Your task to perform on an android device: Open internet settings Image 0: 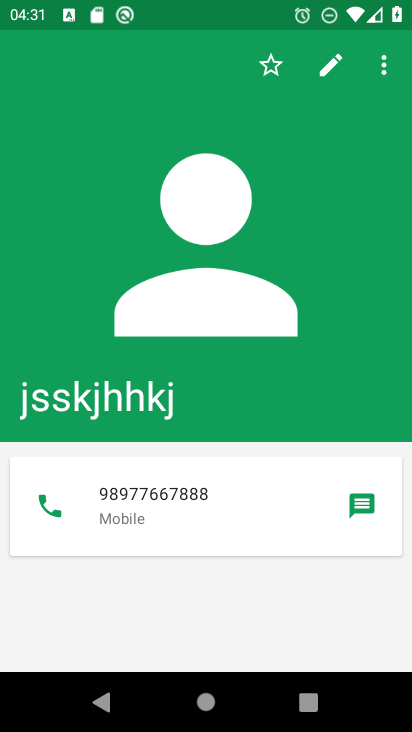
Step 0: press home button
Your task to perform on an android device: Open internet settings Image 1: 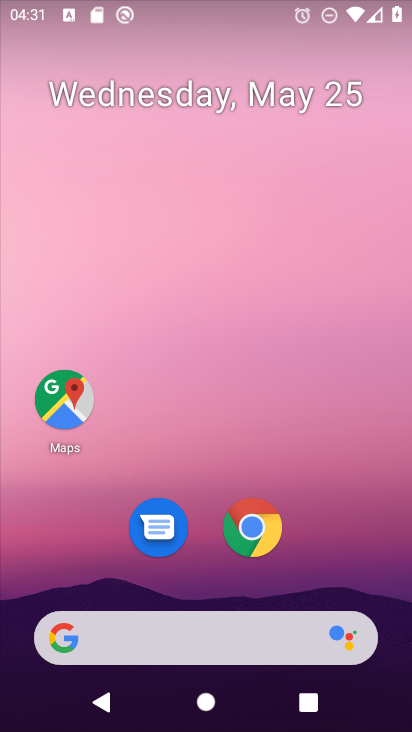
Step 1: drag from (209, 476) to (126, 60)
Your task to perform on an android device: Open internet settings Image 2: 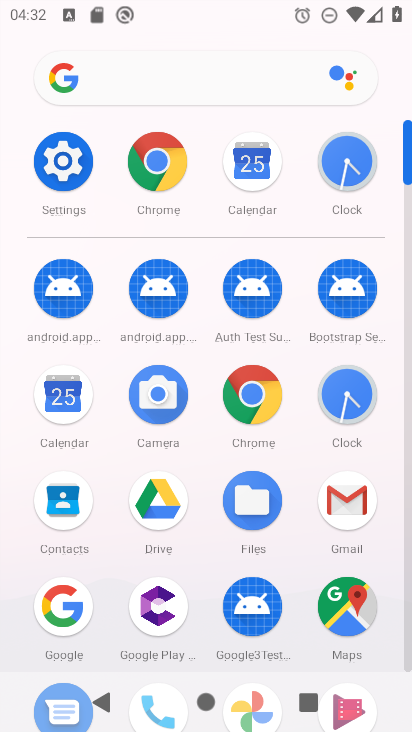
Step 2: click (59, 166)
Your task to perform on an android device: Open internet settings Image 3: 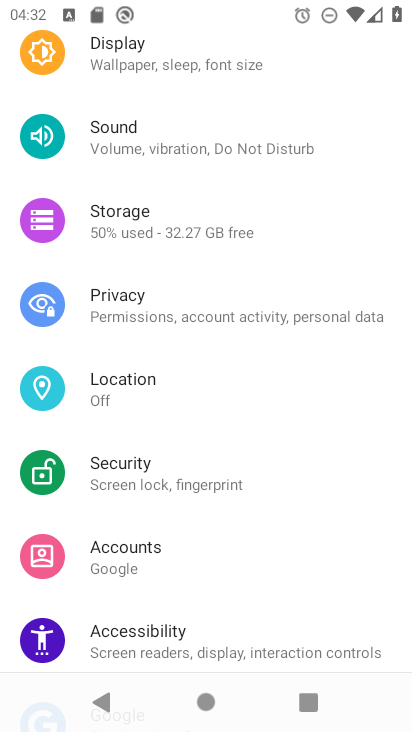
Step 3: drag from (271, 453) to (243, 560)
Your task to perform on an android device: Open internet settings Image 4: 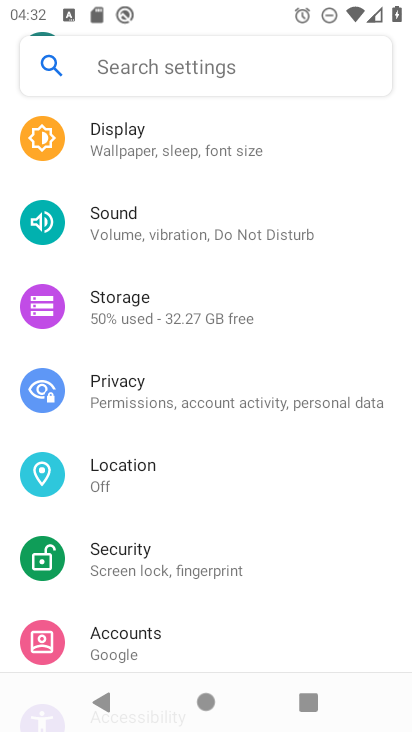
Step 4: drag from (313, 150) to (298, 471)
Your task to perform on an android device: Open internet settings Image 5: 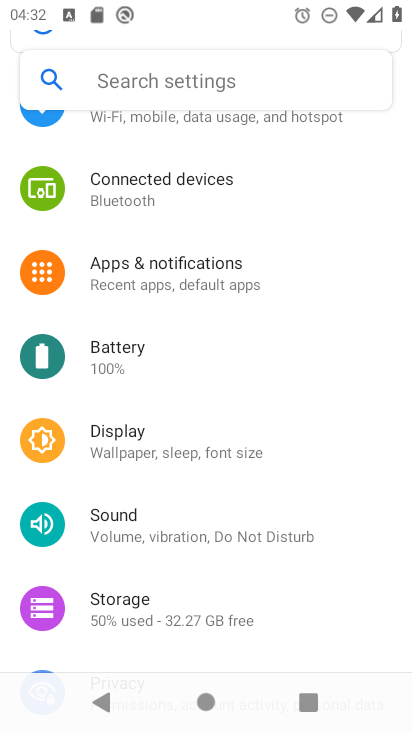
Step 5: drag from (348, 218) to (307, 472)
Your task to perform on an android device: Open internet settings Image 6: 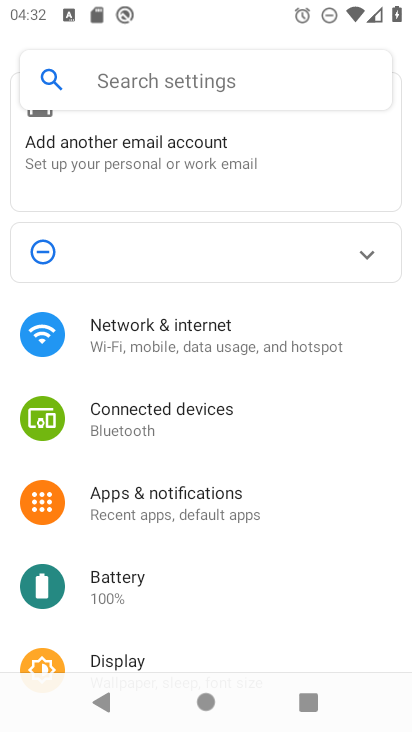
Step 6: click (231, 343)
Your task to perform on an android device: Open internet settings Image 7: 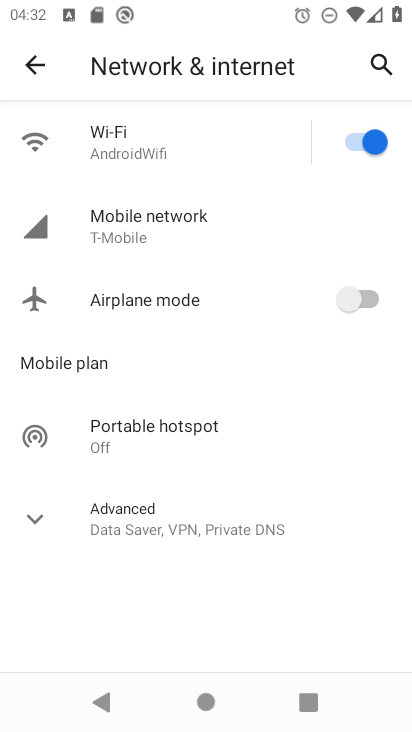
Step 7: click (170, 522)
Your task to perform on an android device: Open internet settings Image 8: 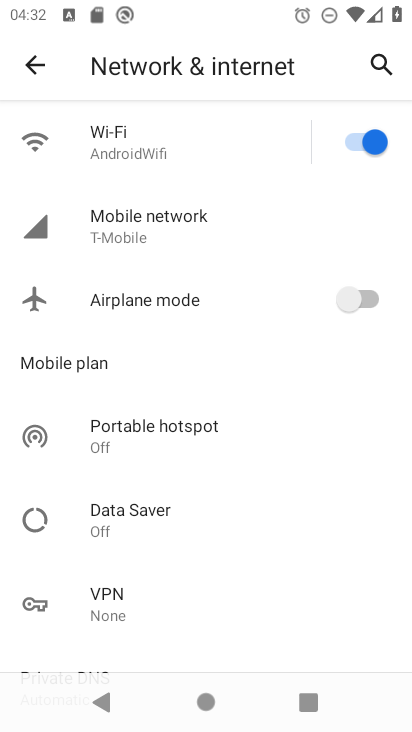
Step 8: drag from (313, 523) to (317, 178)
Your task to perform on an android device: Open internet settings Image 9: 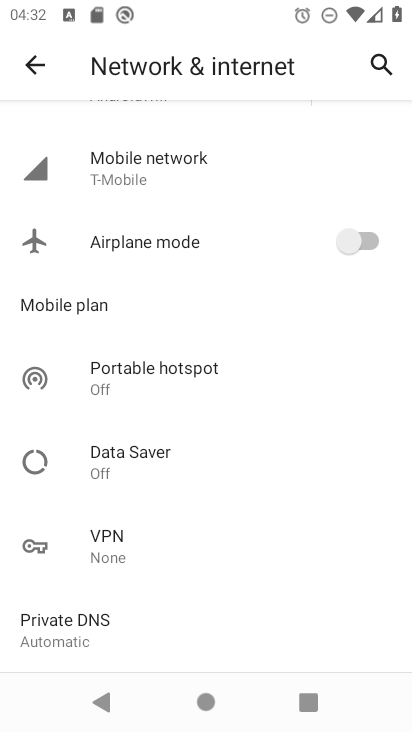
Step 9: drag from (330, 396) to (272, 632)
Your task to perform on an android device: Open internet settings Image 10: 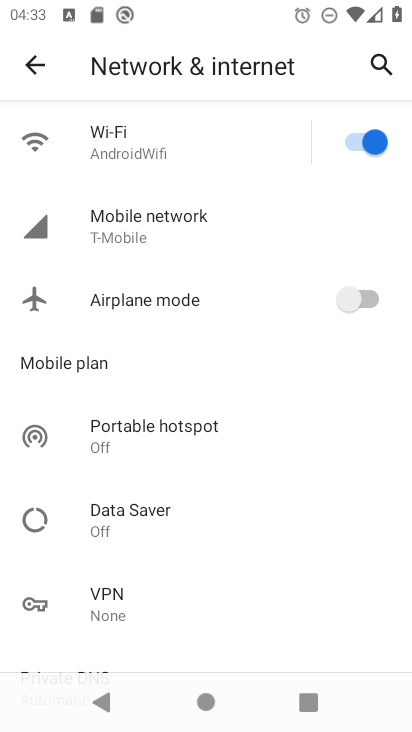
Step 10: click (30, 66)
Your task to perform on an android device: Open internet settings Image 11: 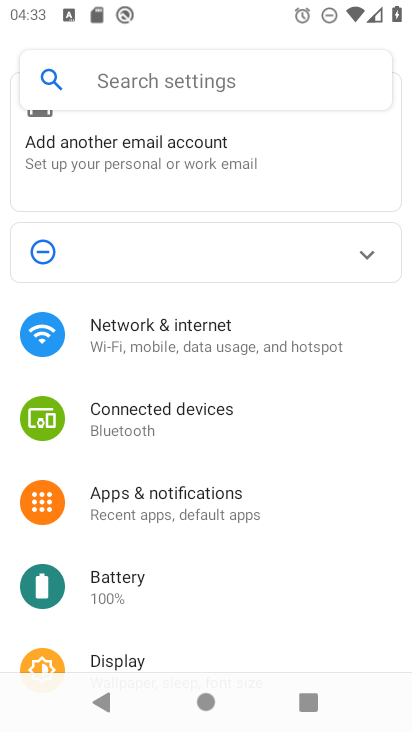
Step 11: drag from (299, 404) to (291, 611)
Your task to perform on an android device: Open internet settings Image 12: 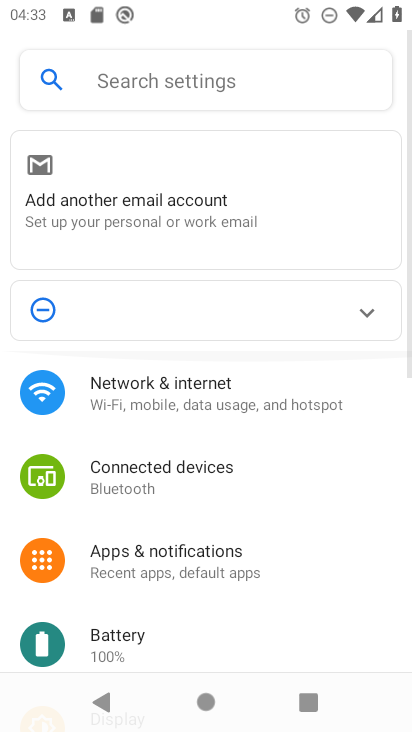
Step 12: drag from (314, 549) to (296, 280)
Your task to perform on an android device: Open internet settings Image 13: 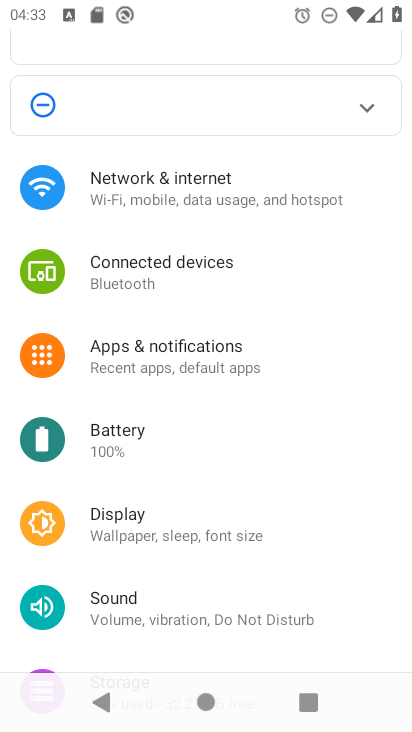
Step 13: drag from (298, 452) to (300, 267)
Your task to perform on an android device: Open internet settings Image 14: 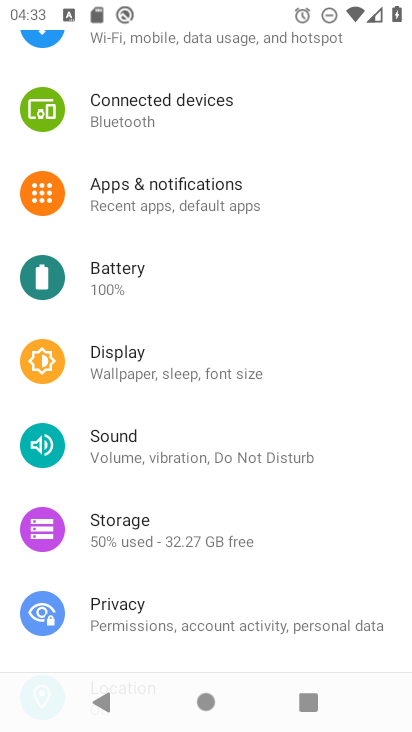
Step 14: drag from (310, 504) to (326, 285)
Your task to perform on an android device: Open internet settings Image 15: 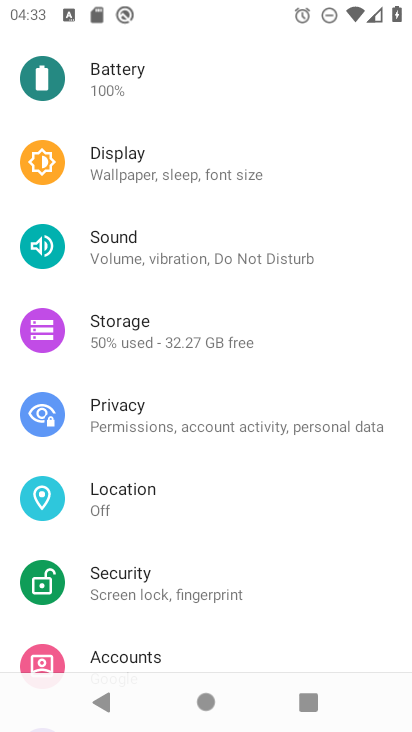
Step 15: drag from (281, 508) to (298, 282)
Your task to perform on an android device: Open internet settings Image 16: 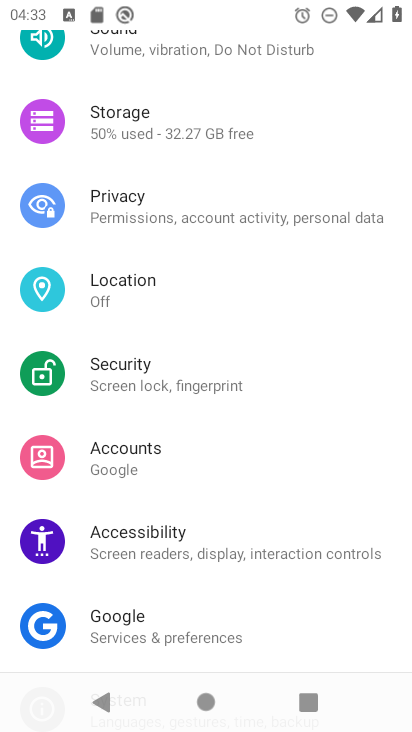
Step 16: drag from (319, 160) to (317, 565)
Your task to perform on an android device: Open internet settings Image 17: 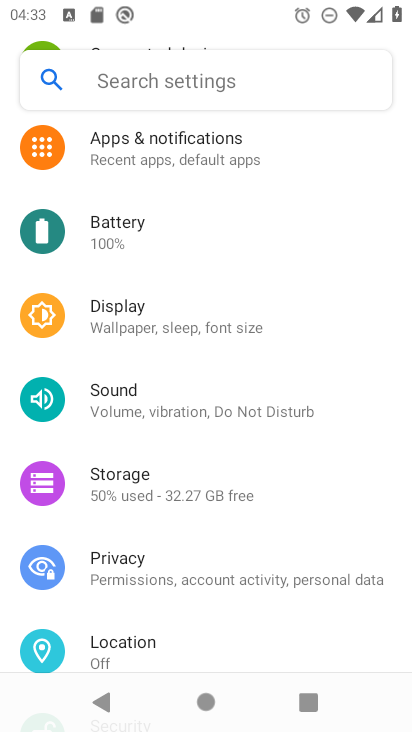
Step 17: drag from (300, 218) to (245, 572)
Your task to perform on an android device: Open internet settings Image 18: 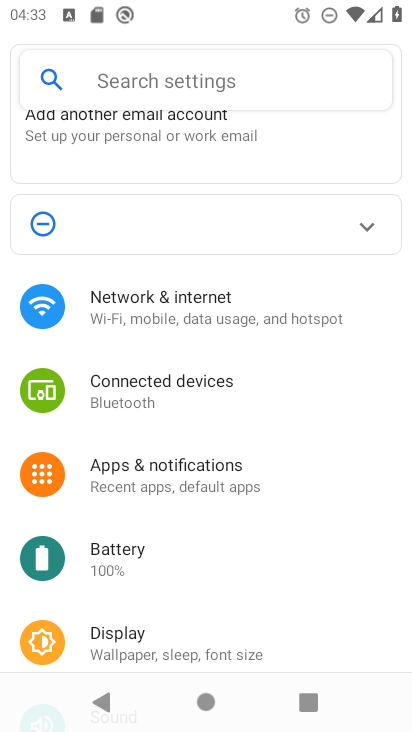
Step 18: drag from (307, 190) to (259, 512)
Your task to perform on an android device: Open internet settings Image 19: 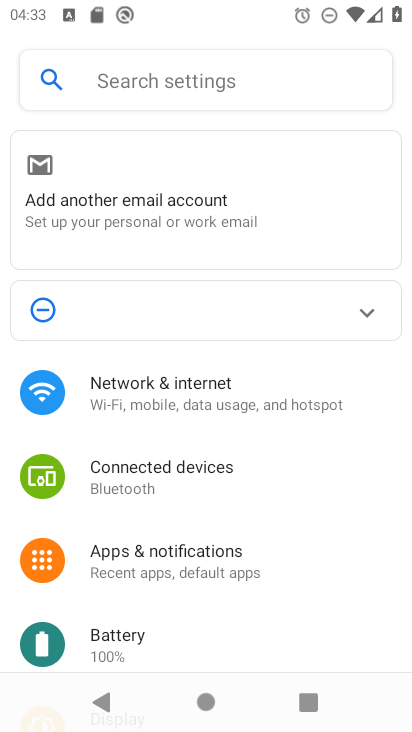
Step 19: click (249, 310)
Your task to perform on an android device: Open internet settings Image 20: 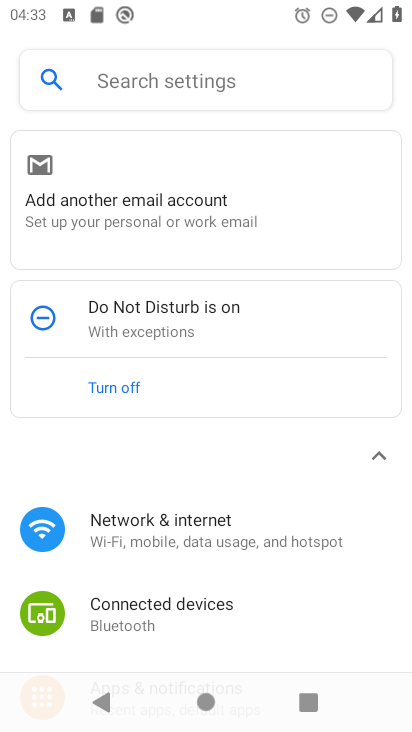
Step 20: click (232, 393)
Your task to perform on an android device: Open internet settings Image 21: 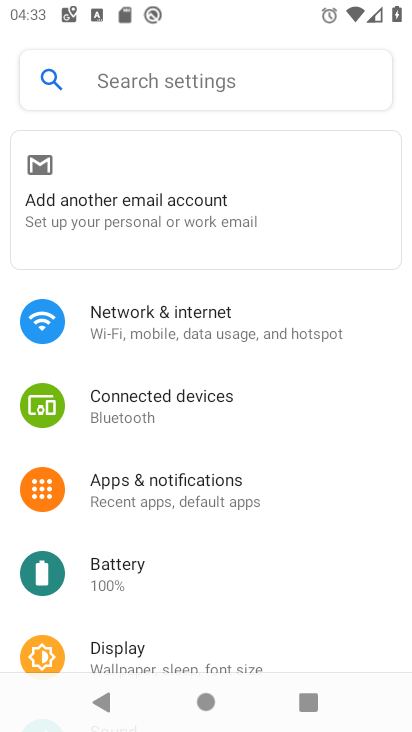
Step 21: click (232, 322)
Your task to perform on an android device: Open internet settings Image 22: 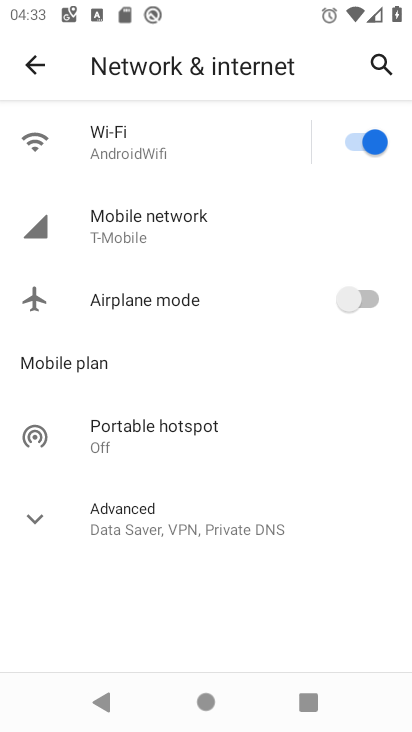
Step 22: task complete